Your task to perform on an android device: Show the shopping cart on newegg. Search for apple airpods pro on newegg, select the first entry, add it to the cart, then select checkout. Image 0: 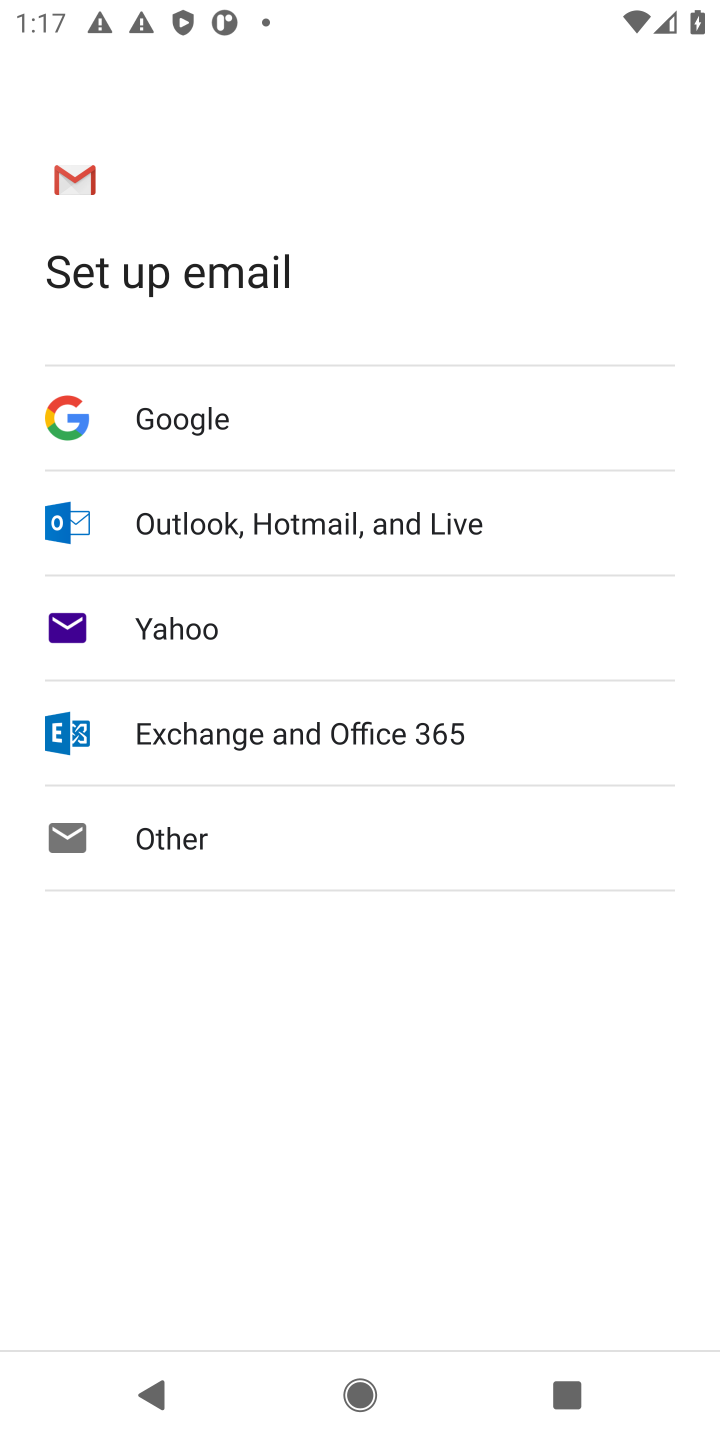
Step 0: press home button
Your task to perform on an android device: Show the shopping cart on newegg. Search for apple airpods pro on newegg, select the first entry, add it to the cart, then select checkout. Image 1: 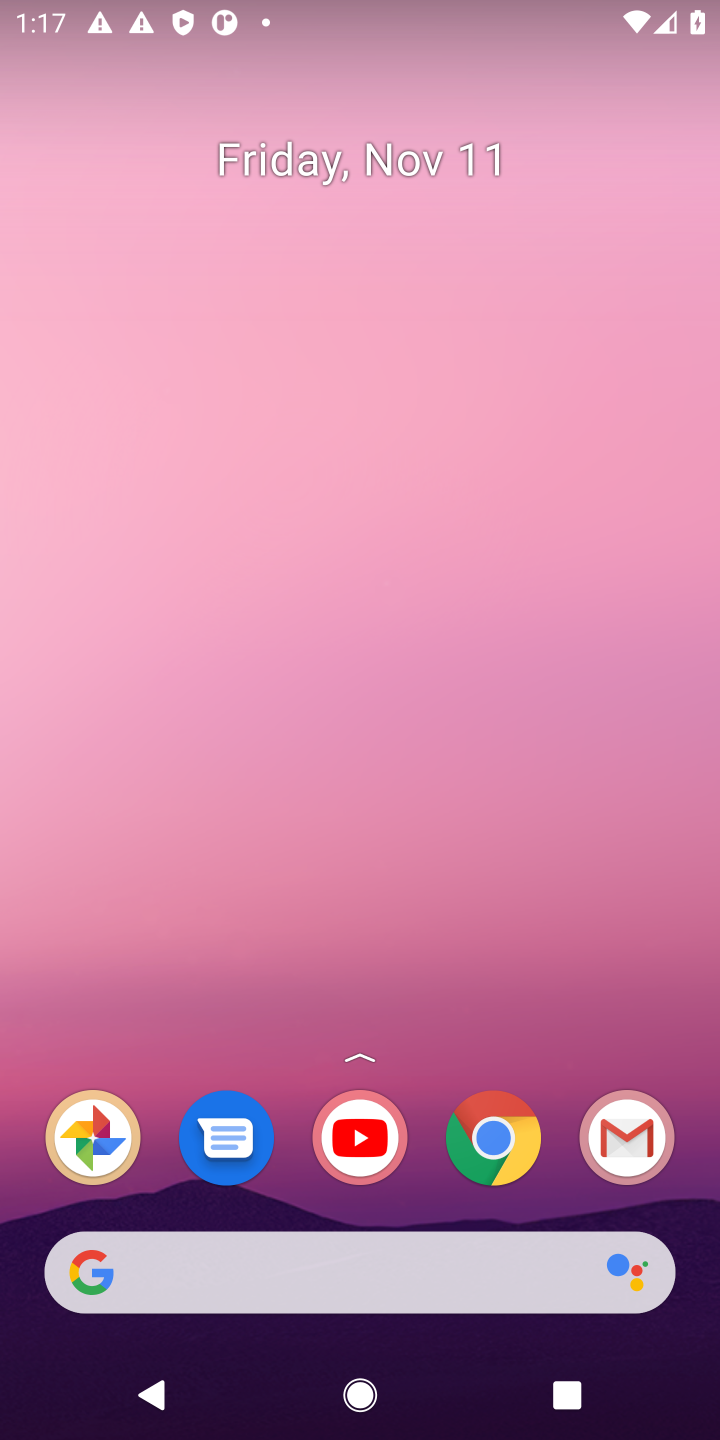
Step 1: click (339, 1259)
Your task to perform on an android device: Show the shopping cart on newegg. Search for apple airpods pro on newegg, select the first entry, add it to the cart, then select checkout. Image 2: 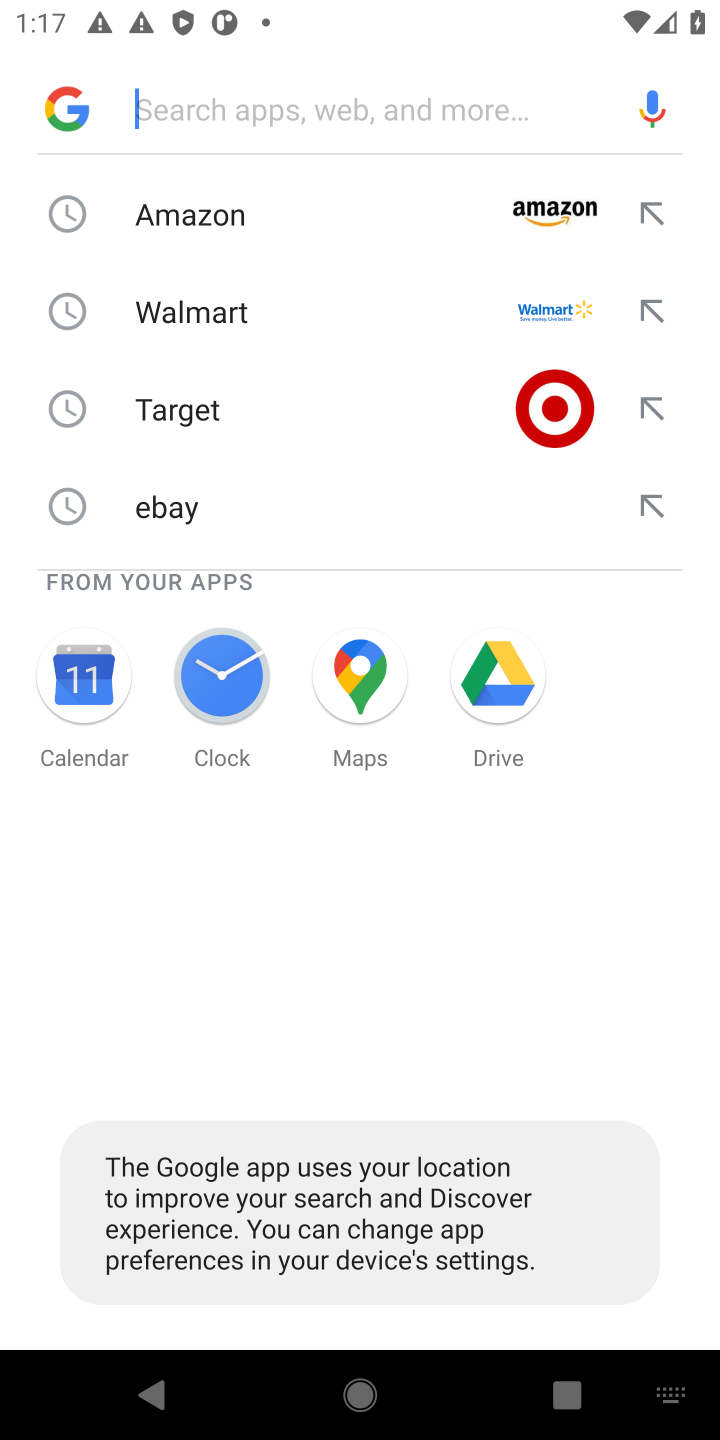
Step 2: type "apple airpods pro on newegg"
Your task to perform on an android device: Show the shopping cart on newegg. Search for apple airpods pro on newegg, select the first entry, add it to the cart, then select checkout. Image 3: 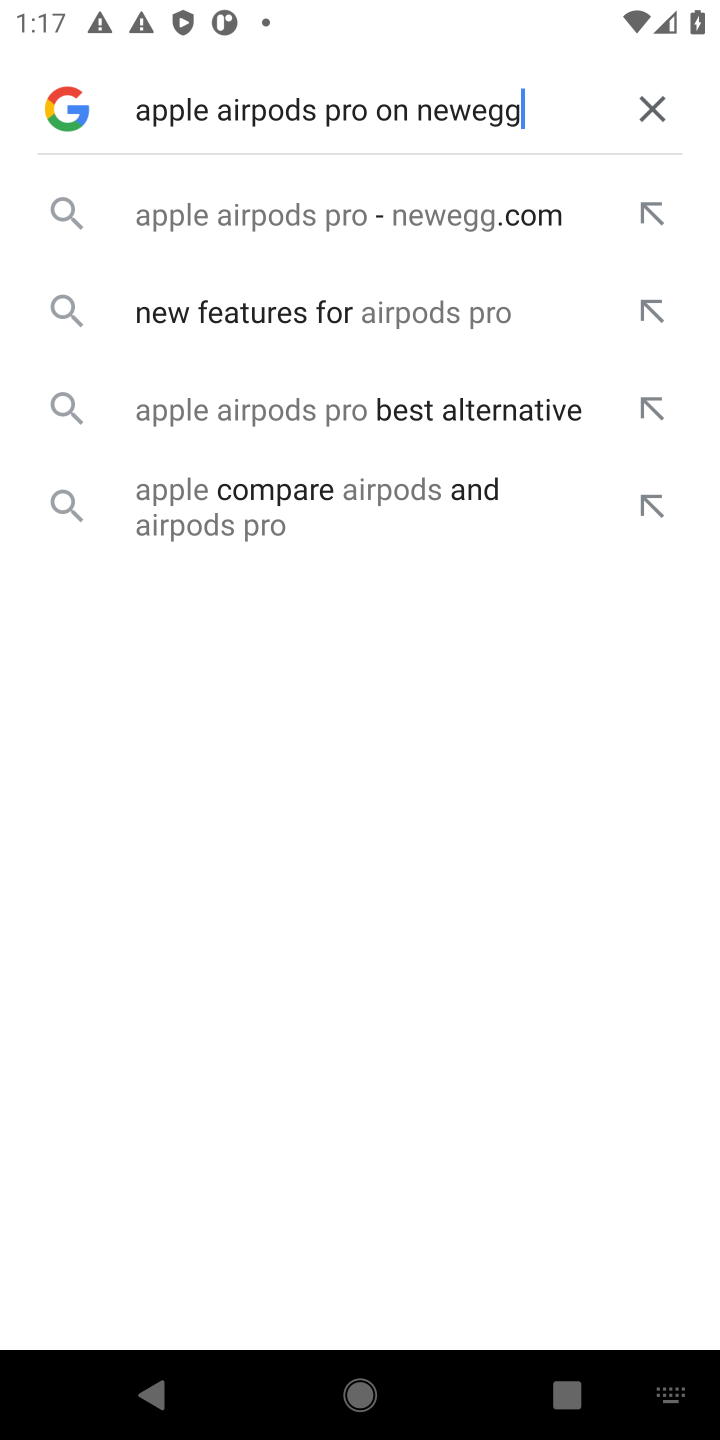
Step 3: click (464, 211)
Your task to perform on an android device: Show the shopping cart on newegg. Search for apple airpods pro on newegg, select the first entry, add it to the cart, then select checkout. Image 4: 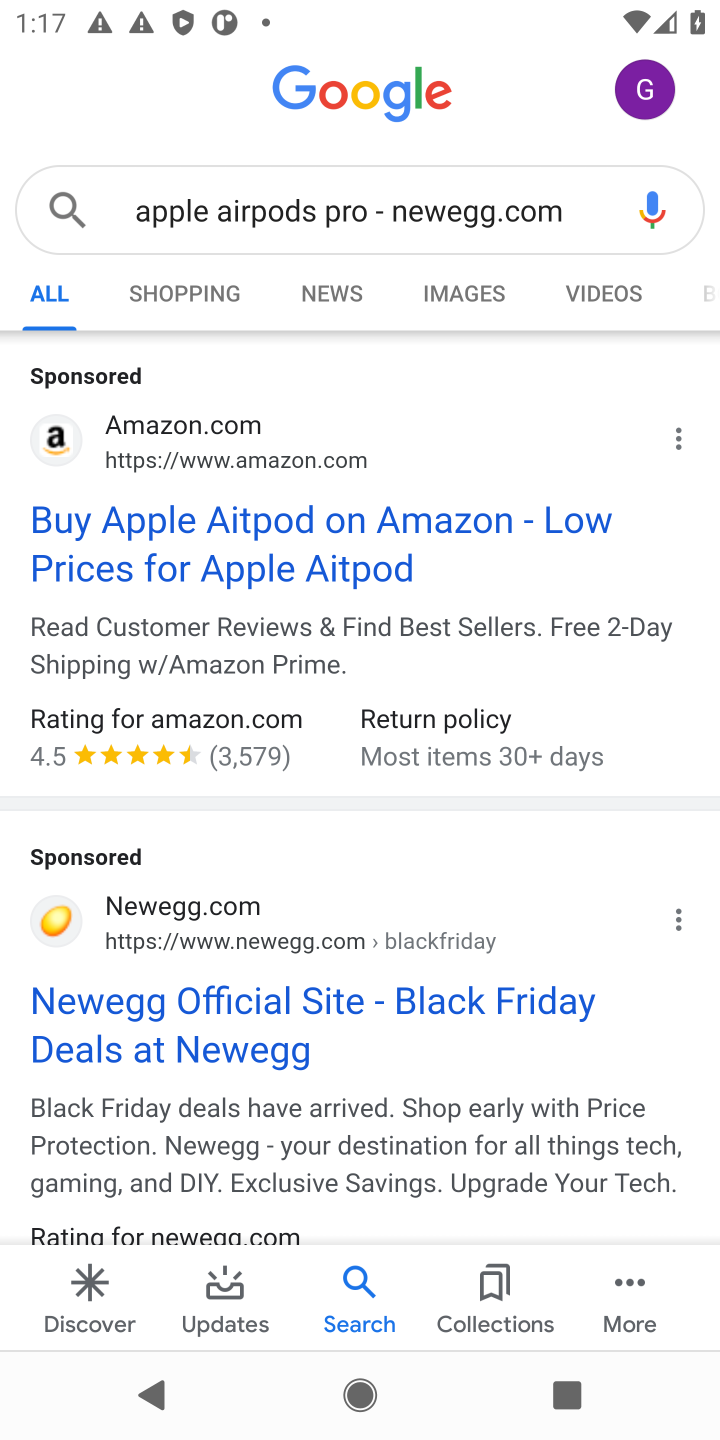
Step 4: drag from (465, 1090) to (539, 183)
Your task to perform on an android device: Show the shopping cart on newegg. Search for apple airpods pro on newegg, select the first entry, add it to the cart, then select checkout. Image 5: 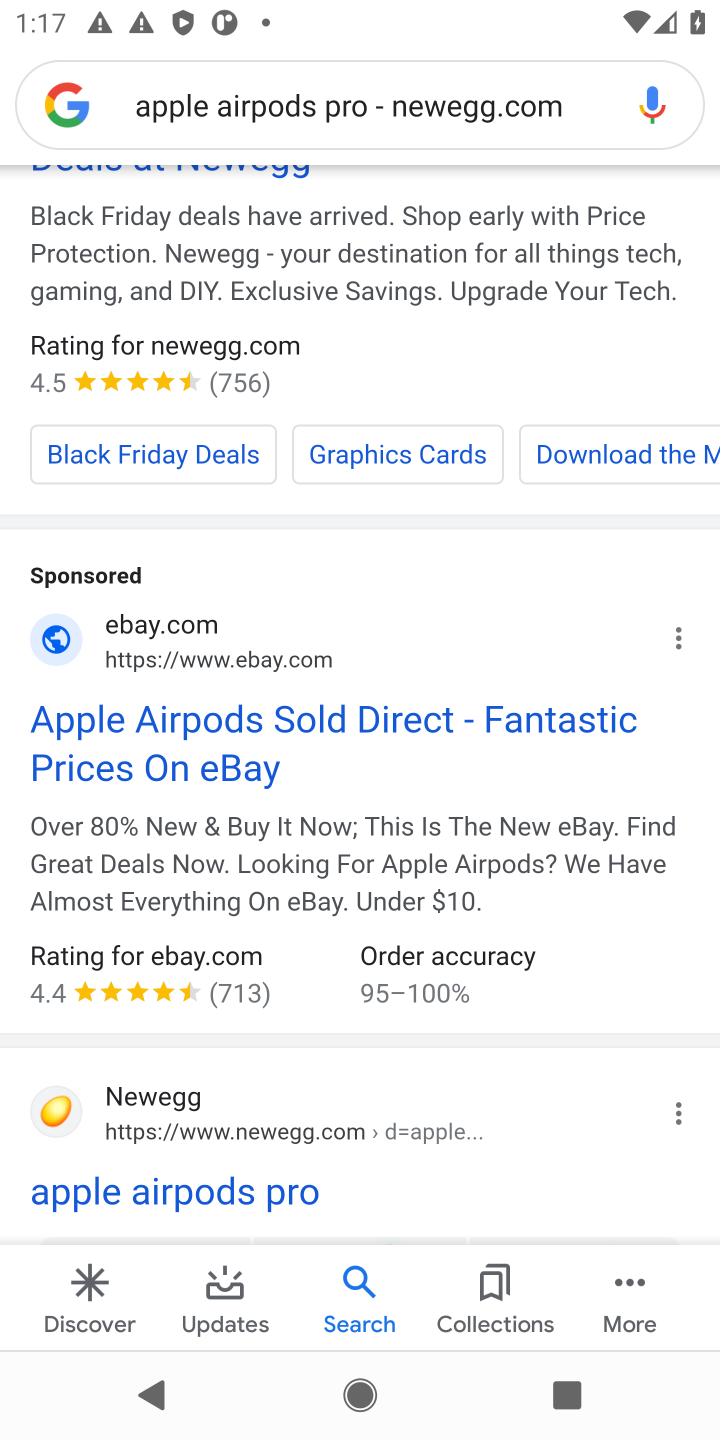
Step 5: drag from (284, 927) to (240, 532)
Your task to perform on an android device: Show the shopping cart on newegg. Search for apple airpods pro on newegg, select the first entry, add it to the cart, then select checkout. Image 6: 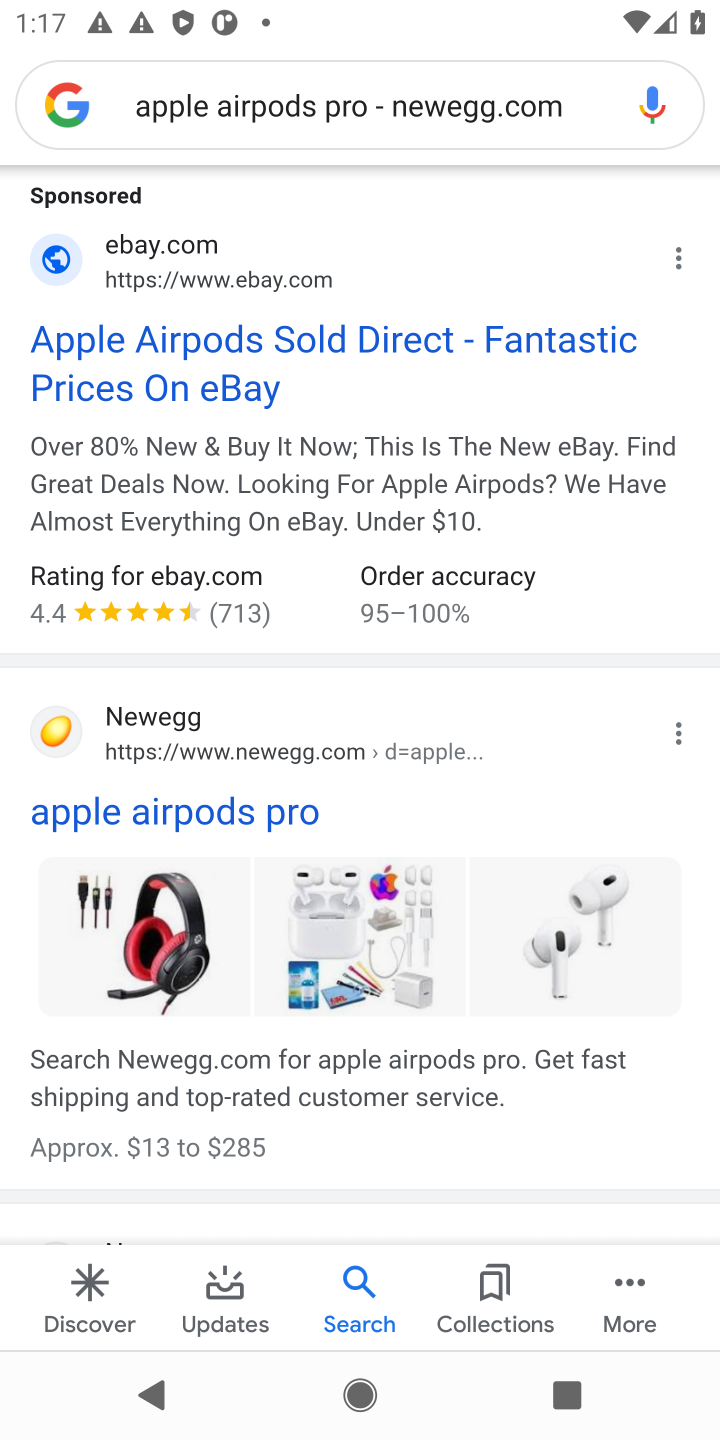
Step 6: click (206, 822)
Your task to perform on an android device: Show the shopping cart on newegg. Search for apple airpods pro on newegg, select the first entry, add it to the cart, then select checkout. Image 7: 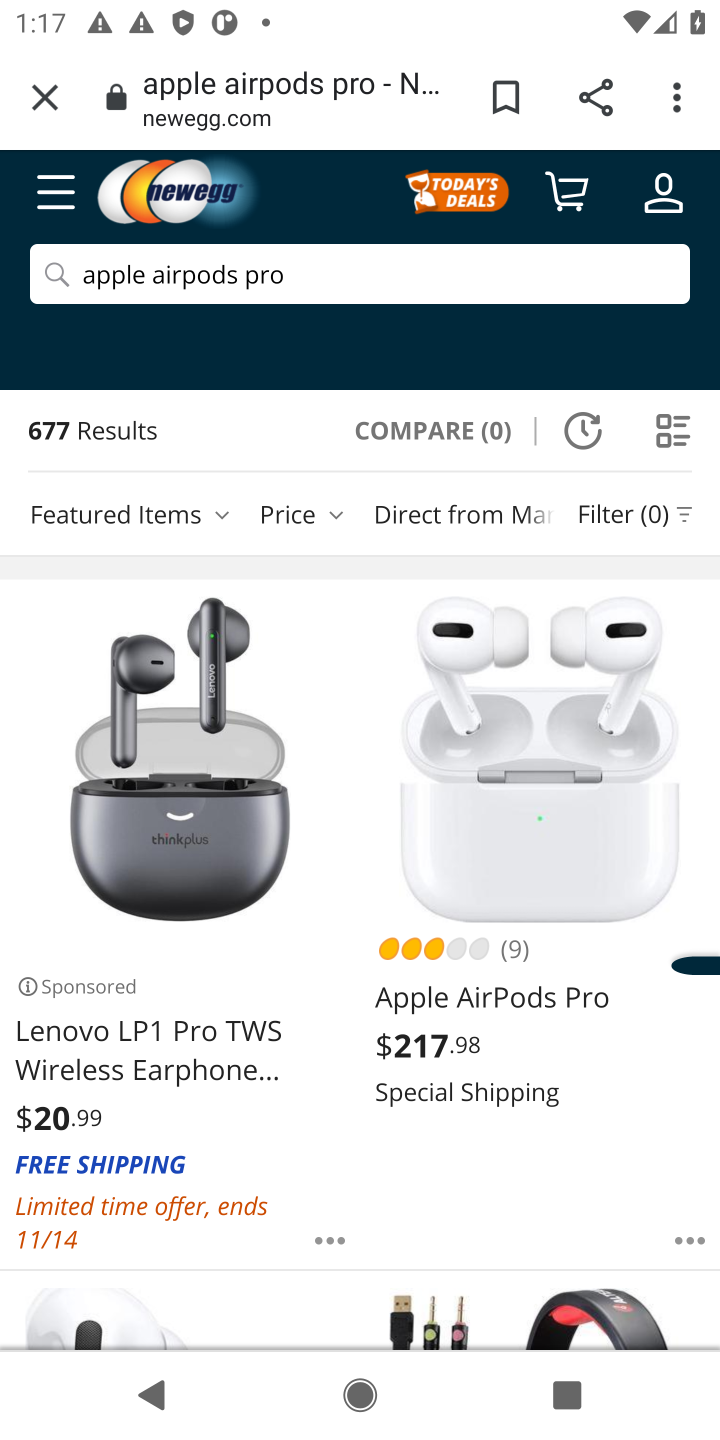
Step 7: click (472, 1000)
Your task to perform on an android device: Show the shopping cart on newegg. Search for apple airpods pro on newegg, select the first entry, add it to the cart, then select checkout. Image 8: 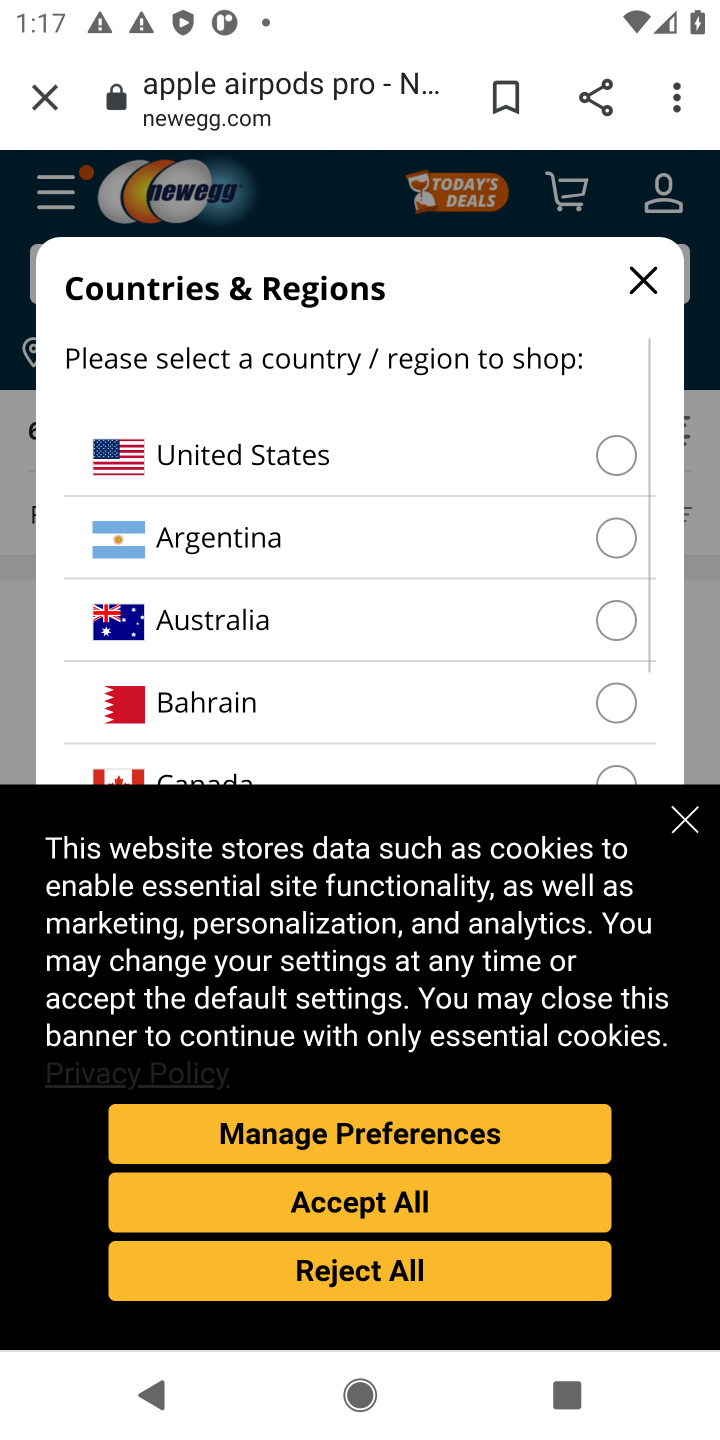
Step 8: click (374, 1272)
Your task to perform on an android device: Show the shopping cart on newegg. Search for apple airpods pro on newegg, select the first entry, add it to the cart, then select checkout. Image 9: 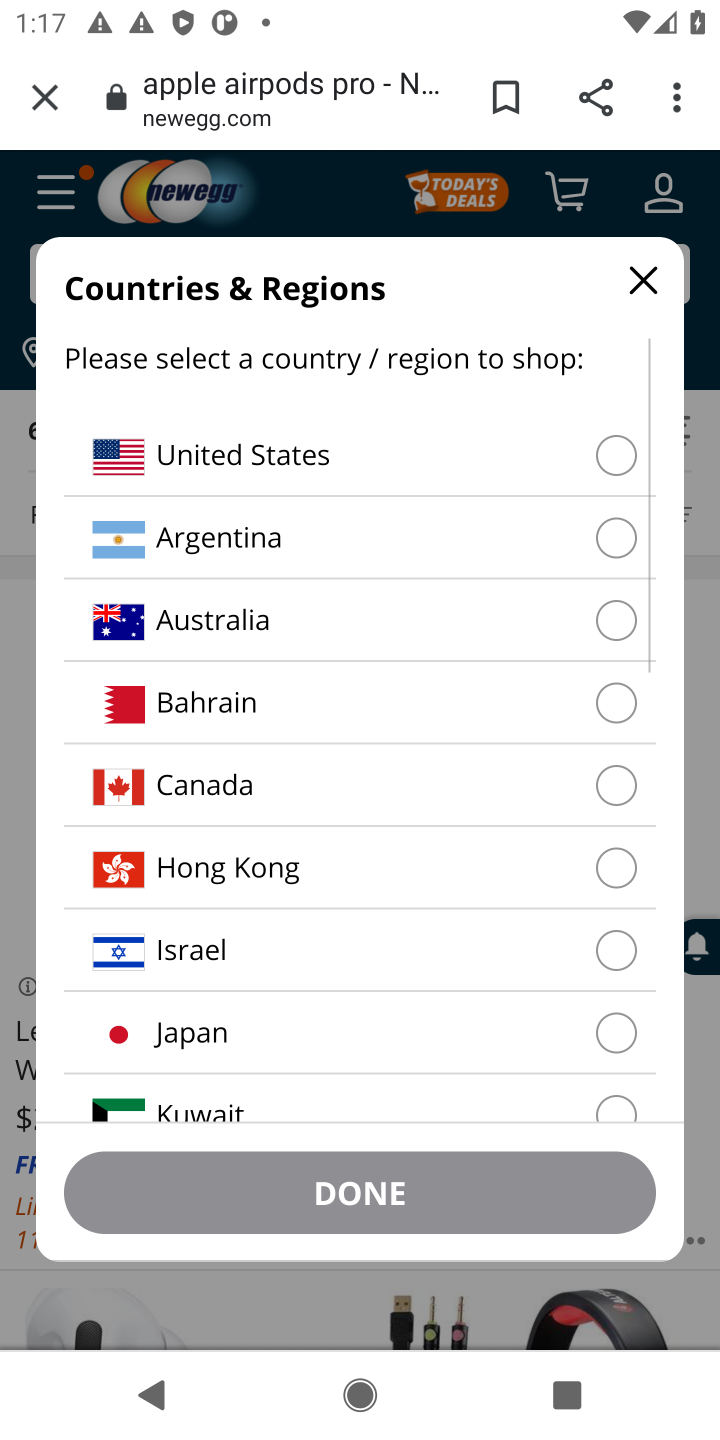
Step 9: click (614, 457)
Your task to perform on an android device: Show the shopping cart on newegg. Search for apple airpods pro on newegg, select the first entry, add it to the cart, then select checkout. Image 10: 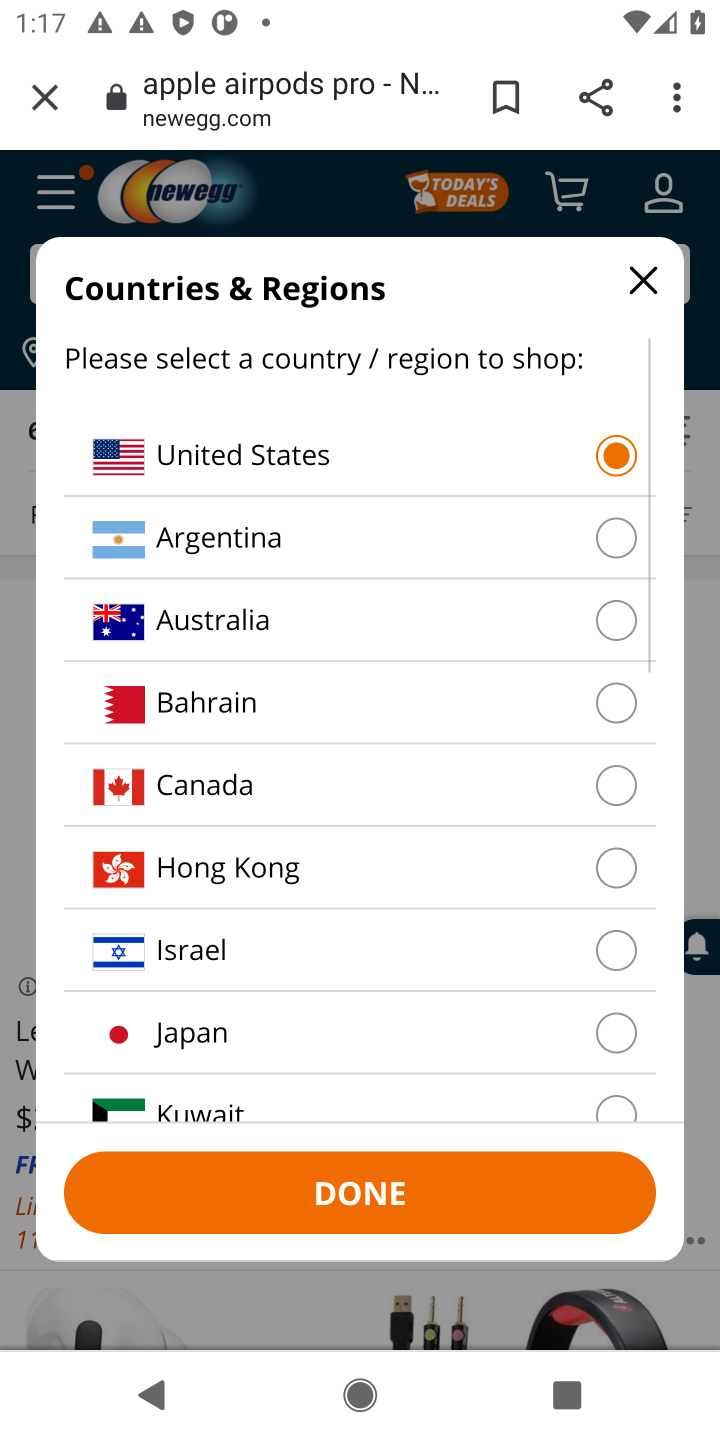
Step 10: click (358, 1198)
Your task to perform on an android device: Show the shopping cart on newegg. Search for apple airpods pro on newegg, select the first entry, add it to the cart, then select checkout. Image 11: 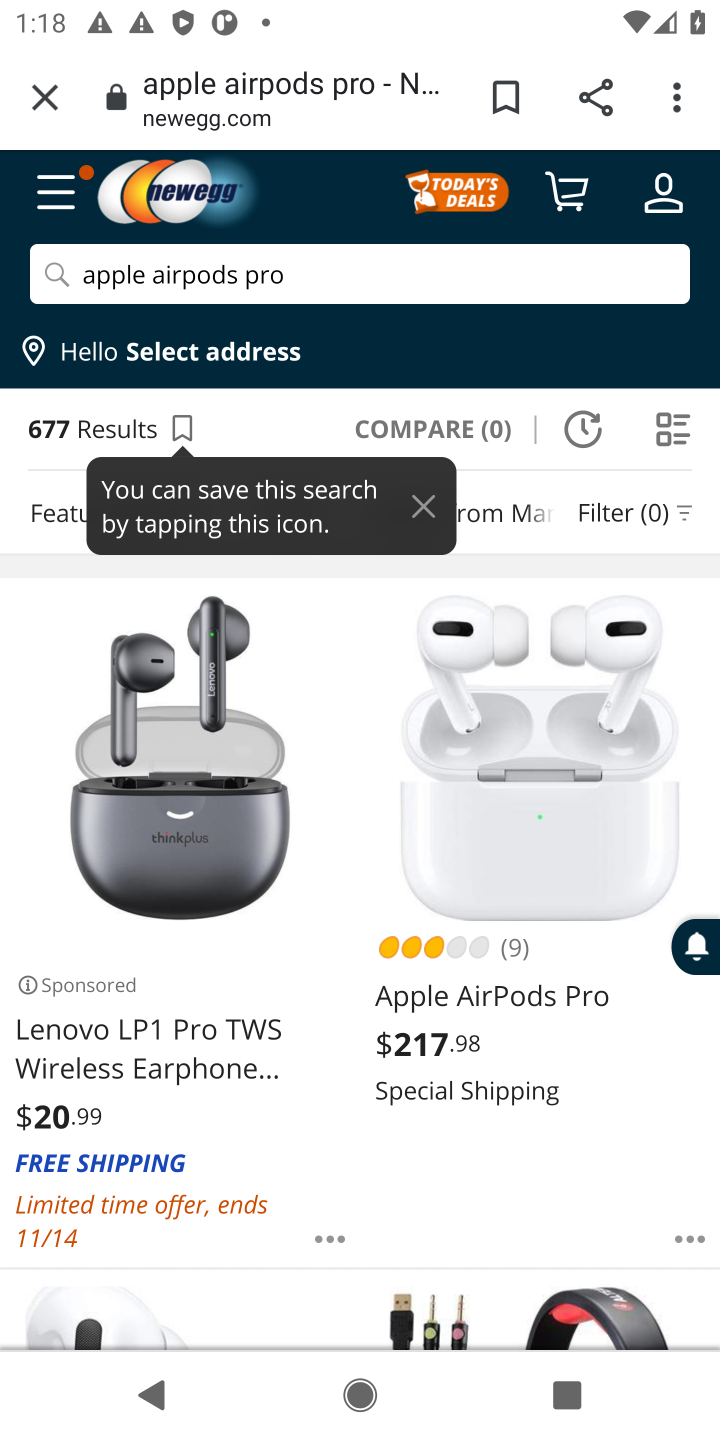
Step 11: click (493, 999)
Your task to perform on an android device: Show the shopping cart on newegg. Search for apple airpods pro on newegg, select the first entry, add it to the cart, then select checkout. Image 12: 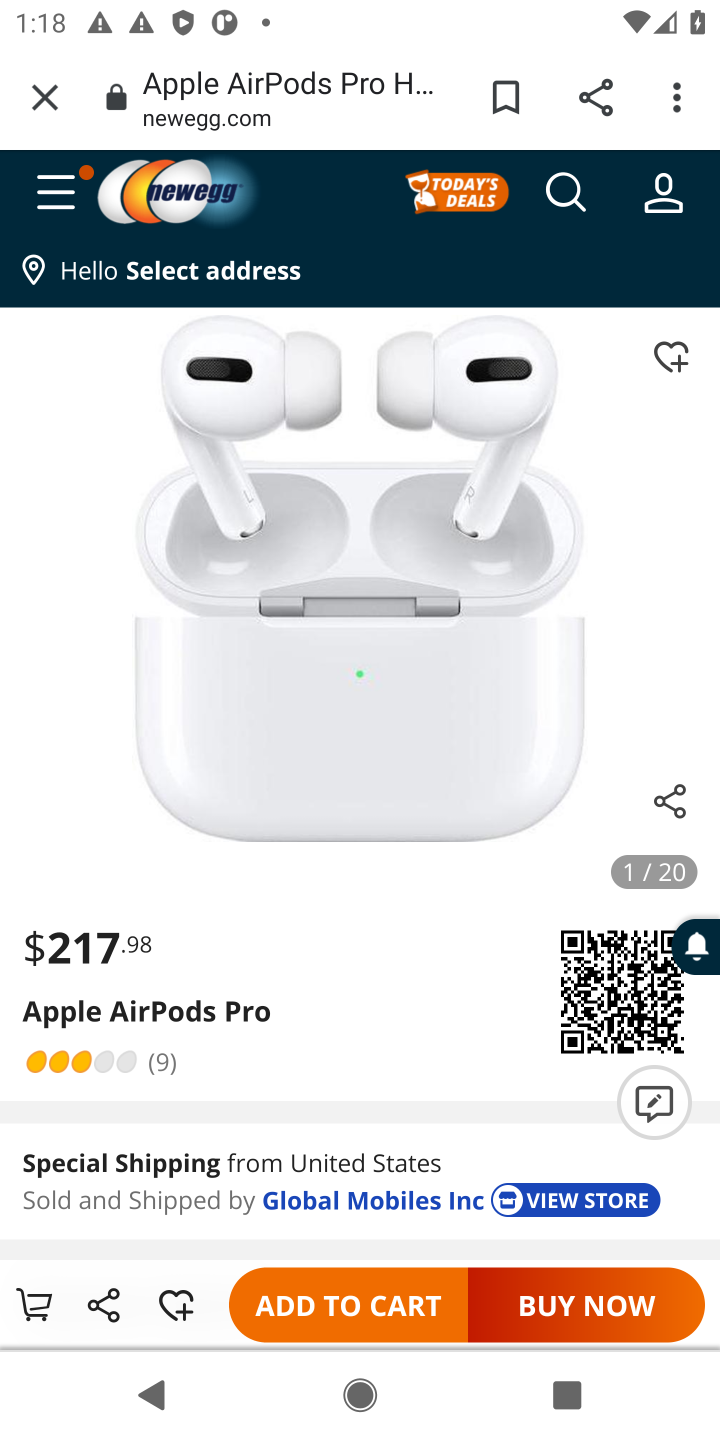
Step 12: click (377, 1315)
Your task to perform on an android device: Show the shopping cart on newegg. Search for apple airpods pro on newegg, select the first entry, add it to the cart, then select checkout. Image 13: 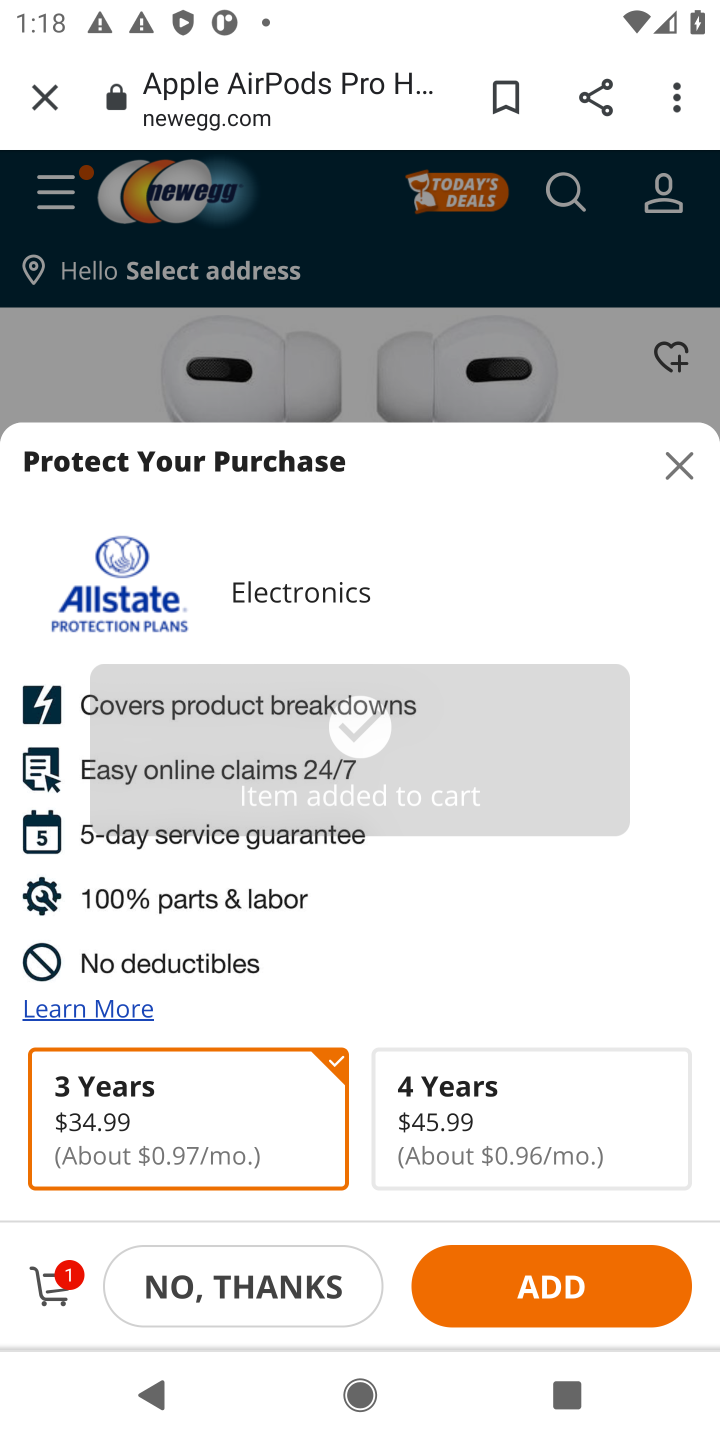
Step 13: task complete